Your task to perform on an android device: turn on notifications settings in the gmail app Image 0: 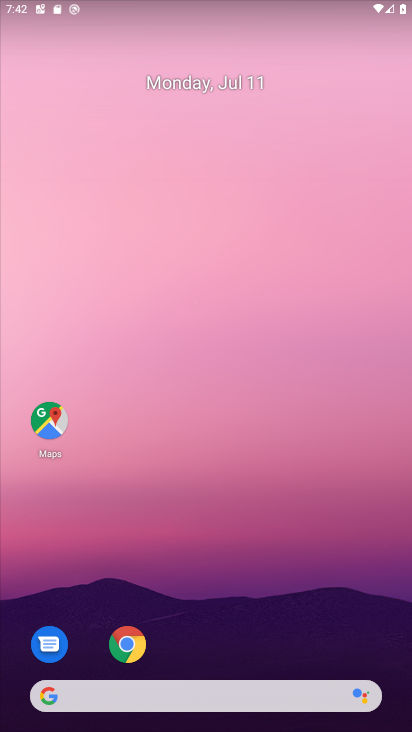
Step 0: drag from (365, 655) to (363, 173)
Your task to perform on an android device: turn on notifications settings in the gmail app Image 1: 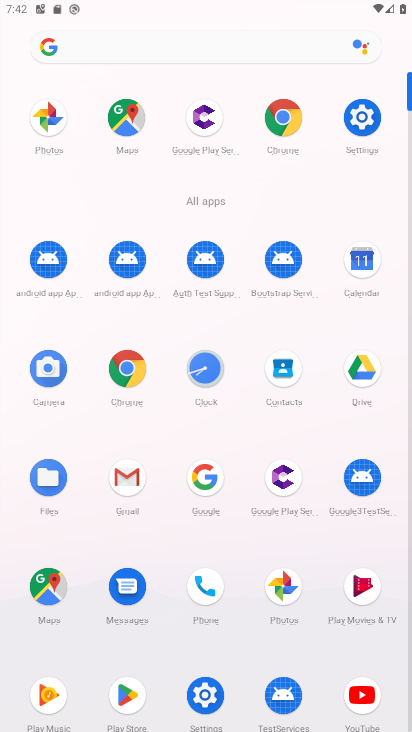
Step 1: click (364, 115)
Your task to perform on an android device: turn on notifications settings in the gmail app Image 2: 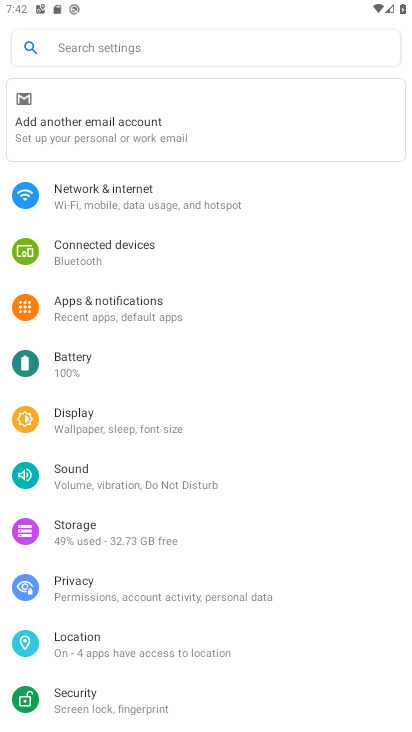
Step 2: press home button
Your task to perform on an android device: turn on notifications settings in the gmail app Image 3: 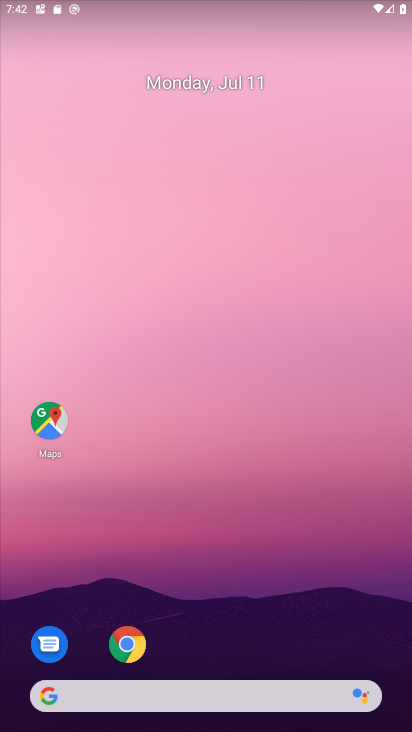
Step 3: drag from (298, 620) to (298, 13)
Your task to perform on an android device: turn on notifications settings in the gmail app Image 4: 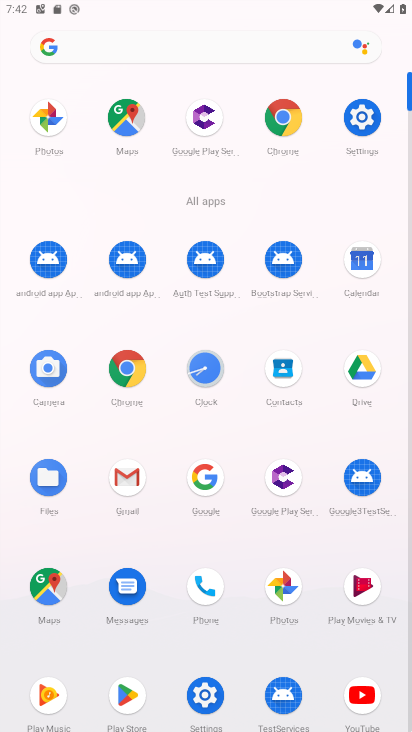
Step 4: click (126, 469)
Your task to perform on an android device: turn on notifications settings in the gmail app Image 5: 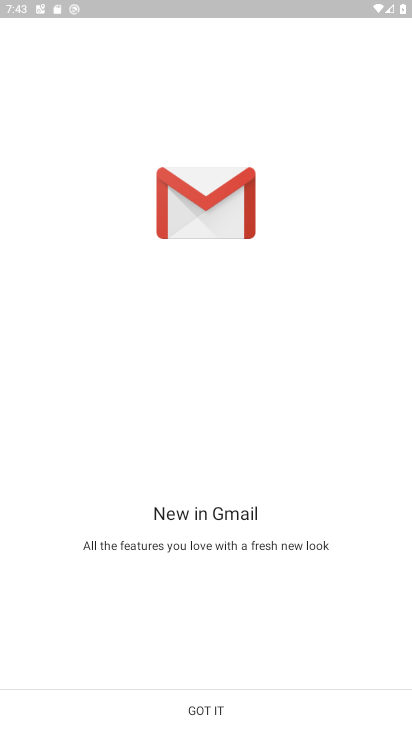
Step 5: click (203, 721)
Your task to perform on an android device: turn on notifications settings in the gmail app Image 6: 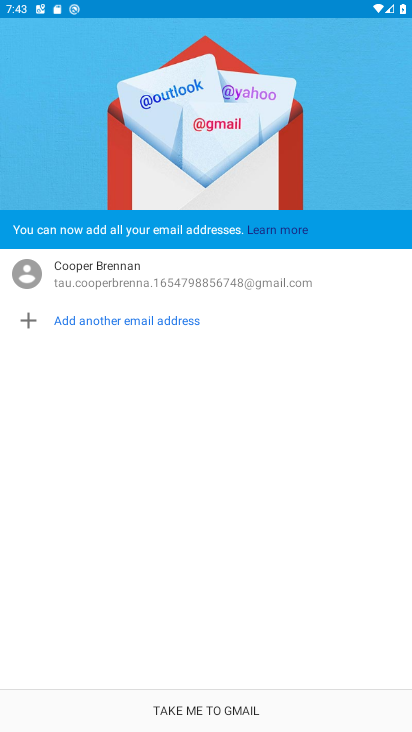
Step 6: click (203, 721)
Your task to perform on an android device: turn on notifications settings in the gmail app Image 7: 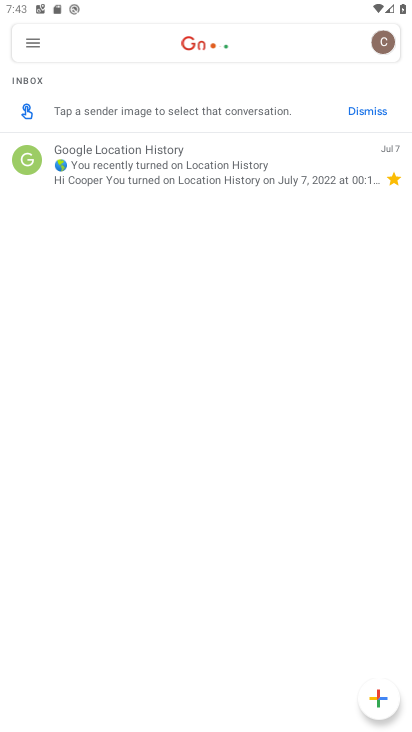
Step 7: click (35, 36)
Your task to perform on an android device: turn on notifications settings in the gmail app Image 8: 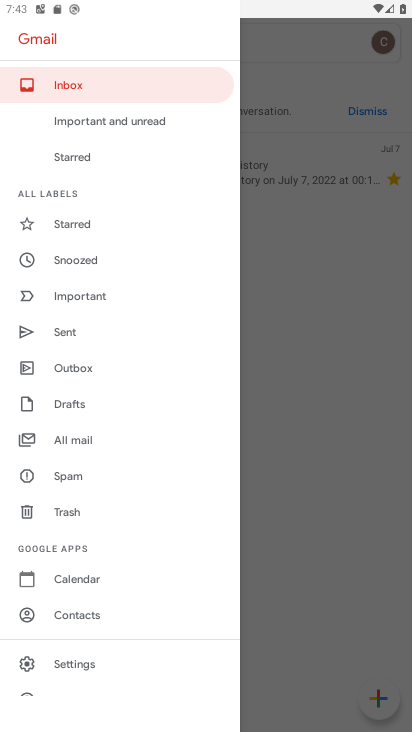
Step 8: click (81, 655)
Your task to perform on an android device: turn on notifications settings in the gmail app Image 9: 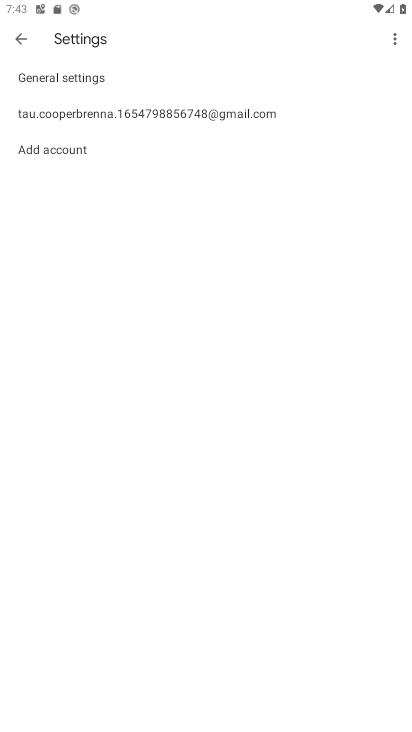
Step 9: click (136, 125)
Your task to perform on an android device: turn on notifications settings in the gmail app Image 10: 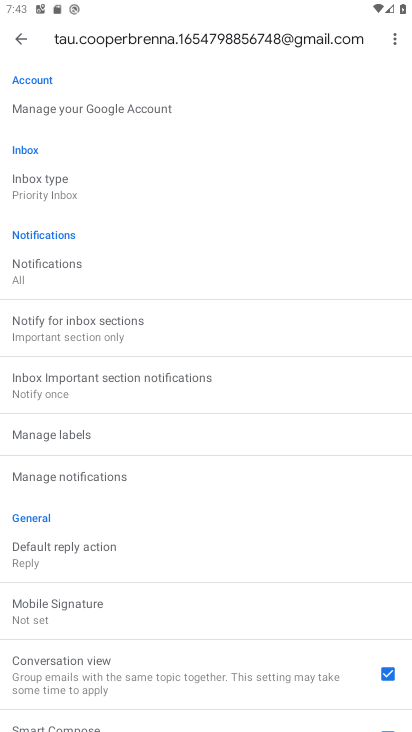
Step 10: click (80, 276)
Your task to perform on an android device: turn on notifications settings in the gmail app Image 11: 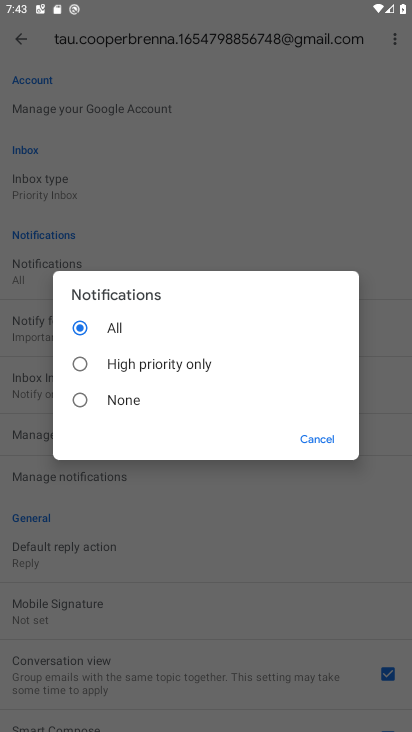
Step 11: task complete